Your task to perform on an android device: Go to network settings Image 0: 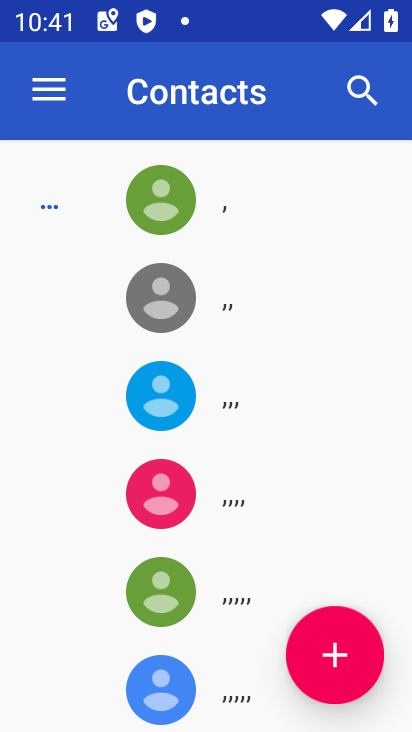
Step 0: press home button
Your task to perform on an android device: Go to network settings Image 1: 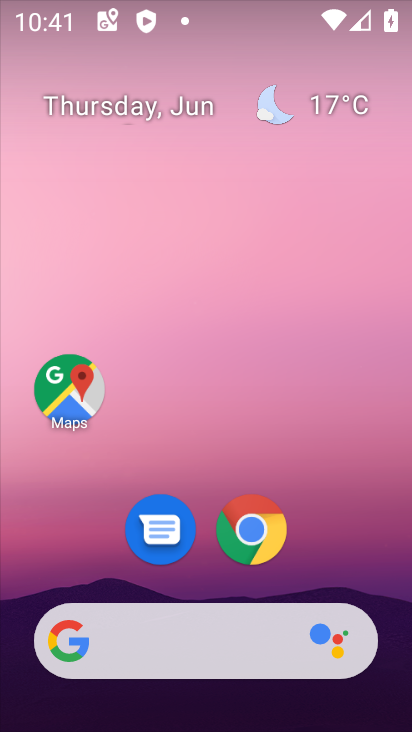
Step 1: drag from (319, 567) to (316, 75)
Your task to perform on an android device: Go to network settings Image 2: 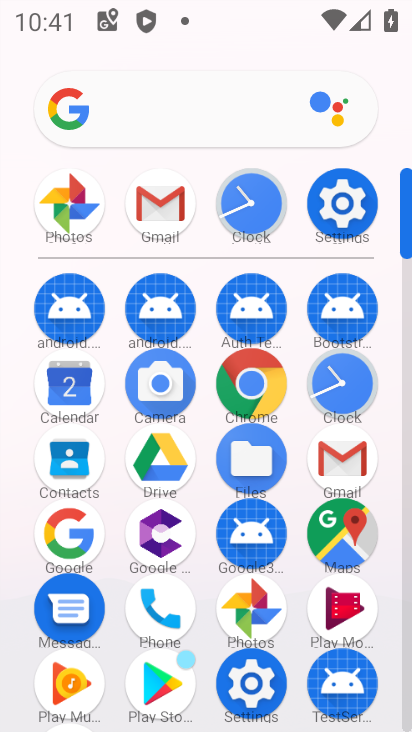
Step 2: click (341, 209)
Your task to perform on an android device: Go to network settings Image 3: 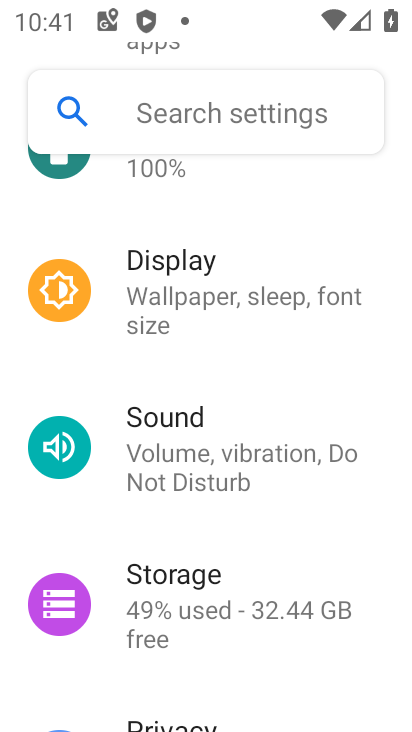
Step 3: drag from (306, 278) to (269, 621)
Your task to perform on an android device: Go to network settings Image 4: 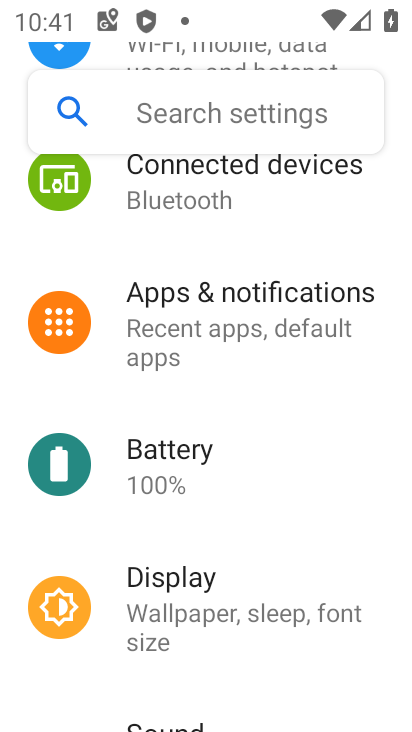
Step 4: drag from (235, 286) to (194, 657)
Your task to perform on an android device: Go to network settings Image 5: 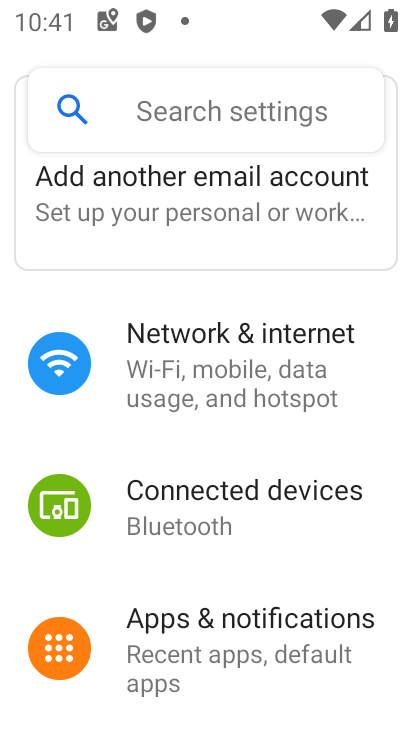
Step 5: click (202, 399)
Your task to perform on an android device: Go to network settings Image 6: 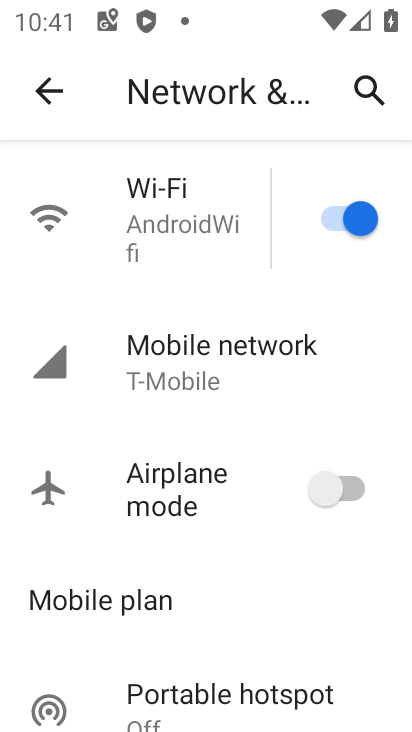
Step 6: click (202, 393)
Your task to perform on an android device: Go to network settings Image 7: 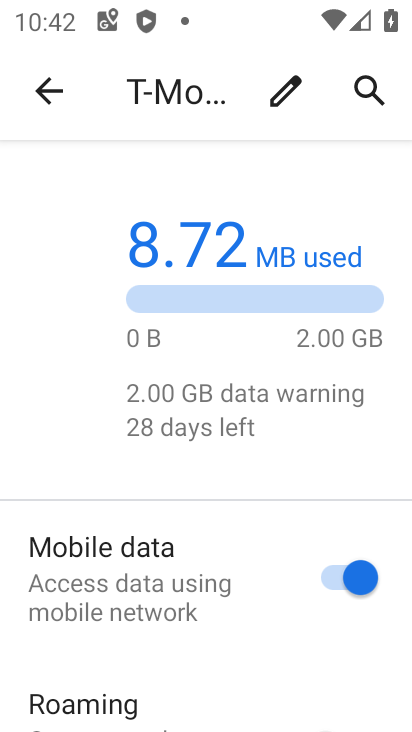
Step 7: task complete